Your task to perform on an android device: toggle javascript in the chrome app Image 0: 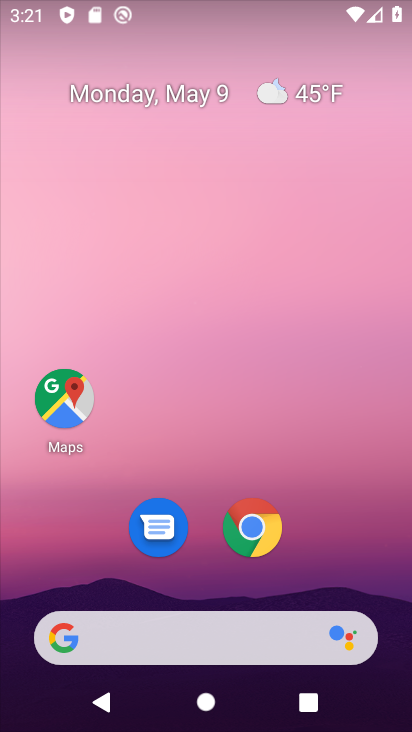
Step 0: click (258, 527)
Your task to perform on an android device: toggle javascript in the chrome app Image 1: 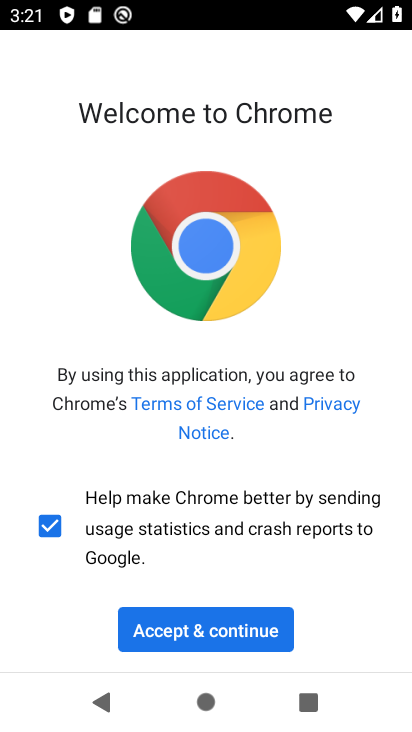
Step 1: click (248, 630)
Your task to perform on an android device: toggle javascript in the chrome app Image 2: 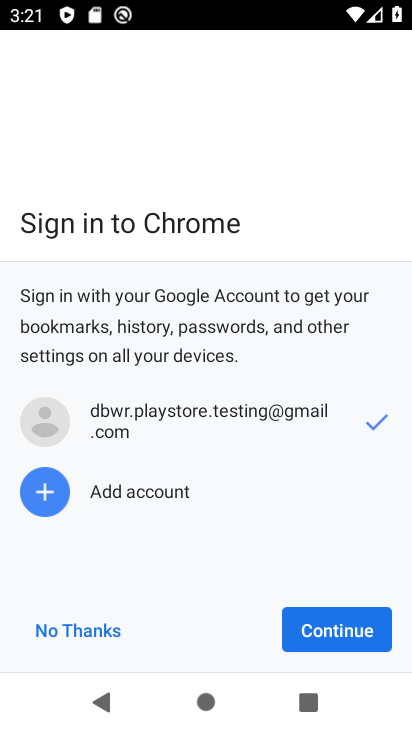
Step 2: click (306, 627)
Your task to perform on an android device: toggle javascript in the chrome app Image 3: 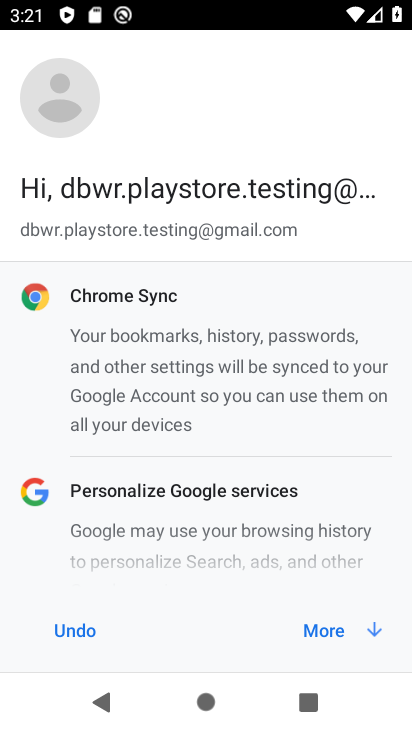
Step 3: click (306, 627)
Your task to perform on an android device: toggle javascript in the chrome app Image 4: 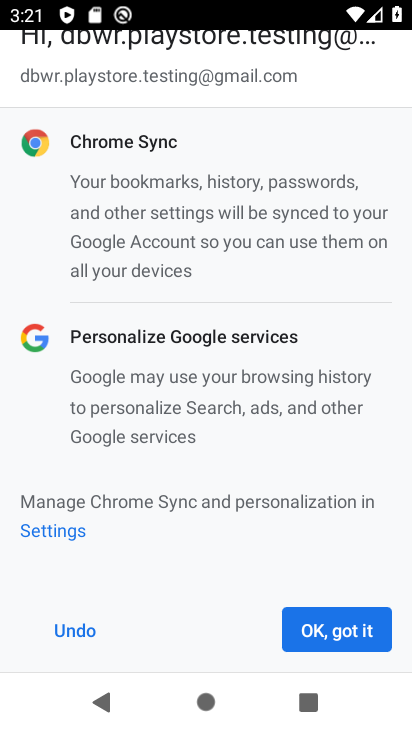
Step 4: click (306, 627)
Your task to perform on an android device: toggle javascript in the chrome app Image 5: 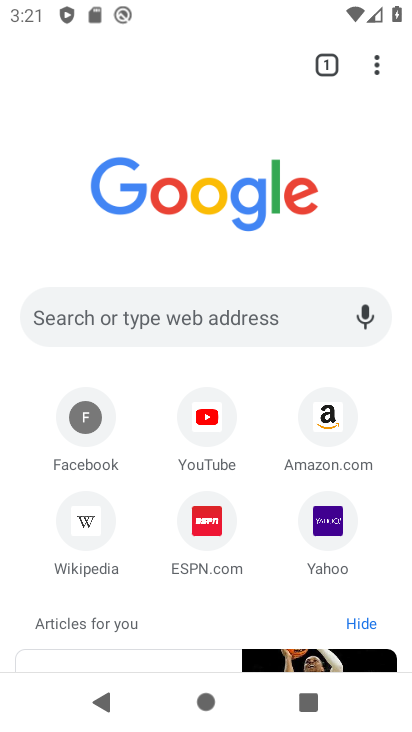
Step 5: click (383, 65)
Your task to perform on an android device: toggle javascript in the chrome app Image 6: 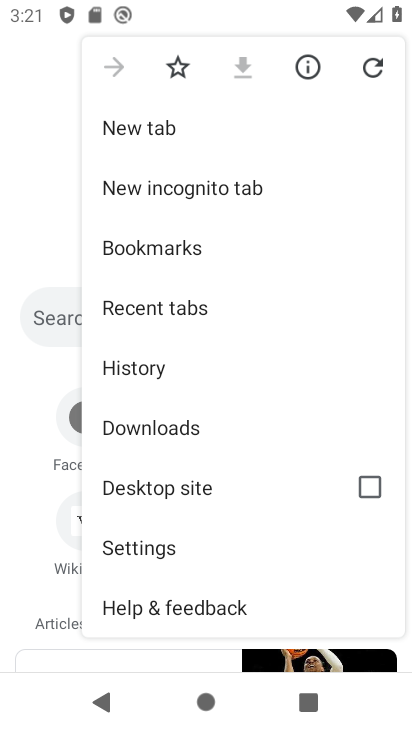
Step 6: click (273, 544)
Your task to perform on an android device: toggle javascript in the chrome app Image 7: 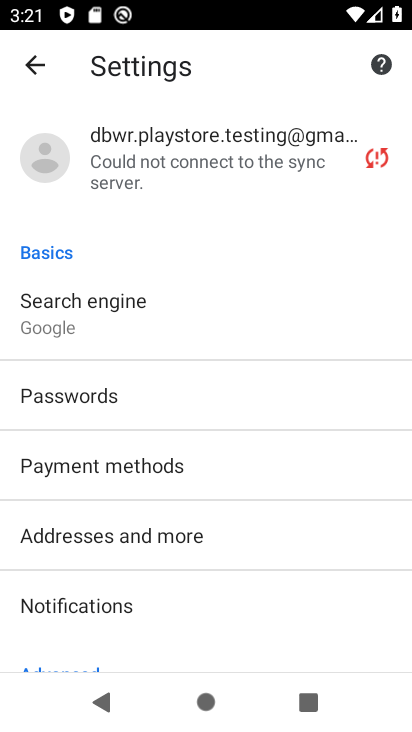
Step 7: drag from (265, 652) to (264, 281)
Your task to perform on an android device: toggle javascript in the chrome app Image 8: 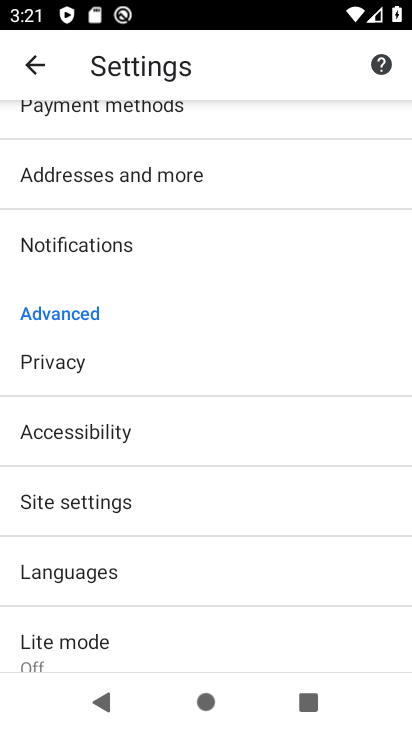
Step 8: click (265, 497)
Your task to perform on an android device: toggle javascript in the chrome app Image 9: 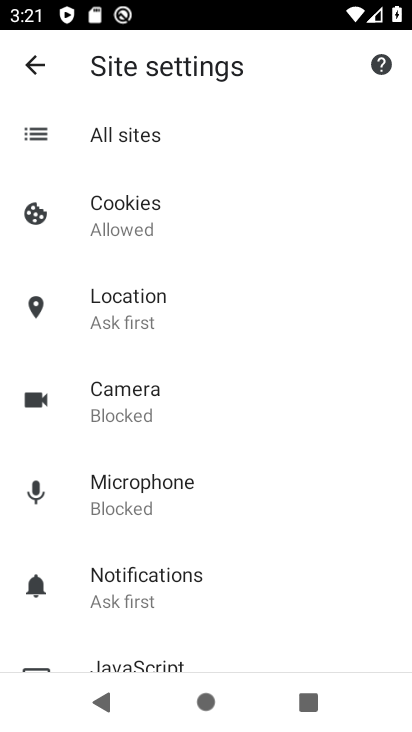
Step 9: drag from (287, 610) to (268, 340)
Your task to perform on an android device: toggle javascript in the chrome app Image 10: 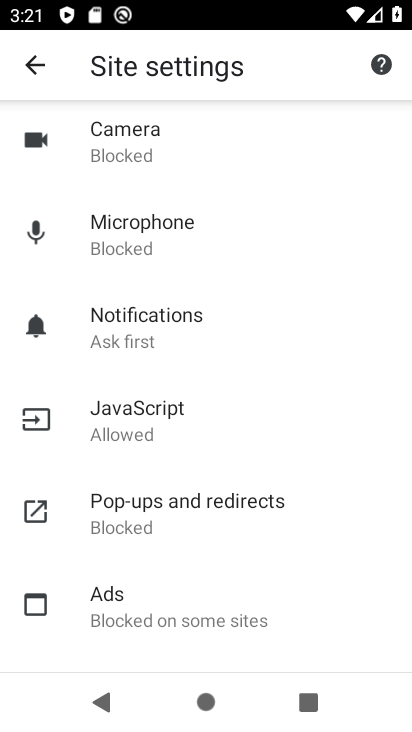
Step 10: click (260, 395)
Your task to perform on an android device: toggle javascript in the chrome app Image 11: 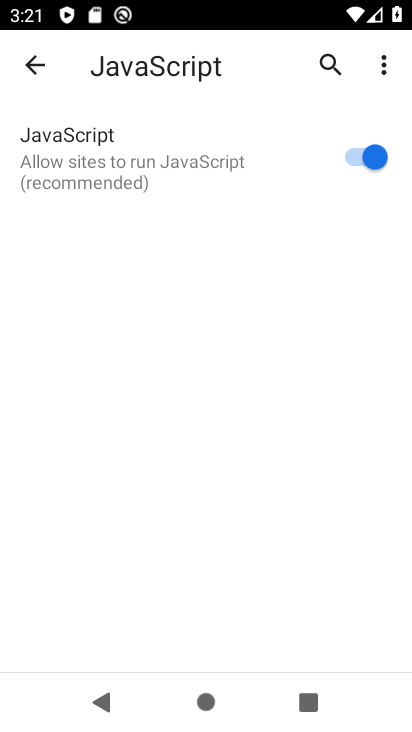
Step 11: click (366, 142)
Your task to perform on an android device: toggle javascript in the chrome app Image 12: 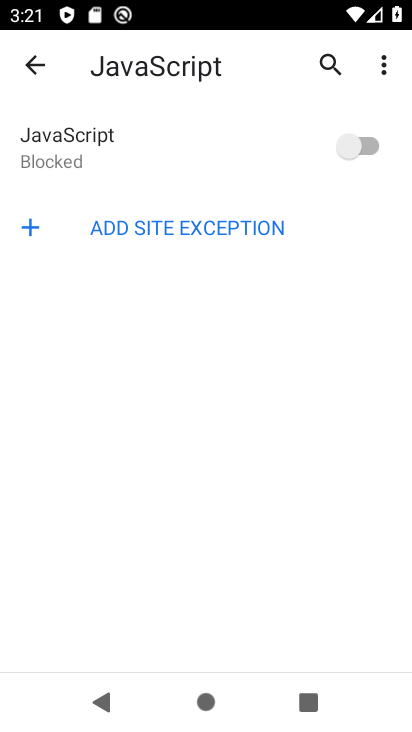
Step 12: task complete